Your task to perform on an android device: Clear the shopping cart on ebay.com. Add lenovo thinkpad to the cart on ebay.com, then select checkout. Image 0: 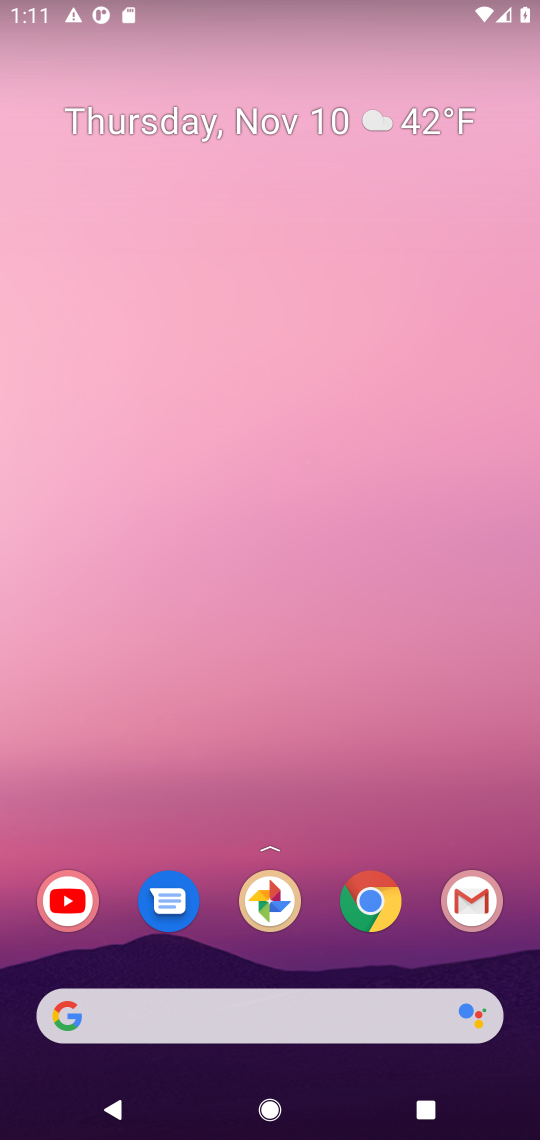
Step 0: drag from (280, 926) to (281, 204)
Your task to perform on an android device: Clear the shopping cart on ebay.com. Add lenovo thinkpad to the cart on ebay.com, then select checkout. Image 1: 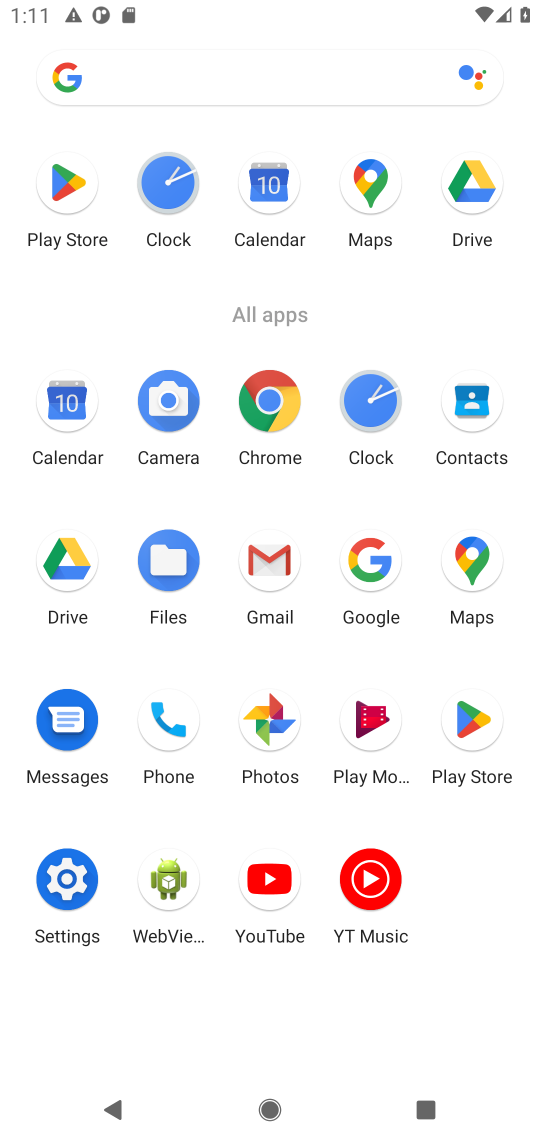
Step 1: click (253, 400)
Your task to perform on an android device: Clear the shopping cart on ebay.com. Add lenovo thinkpad to the cart on ebay.com, then select checkout. Image 2: 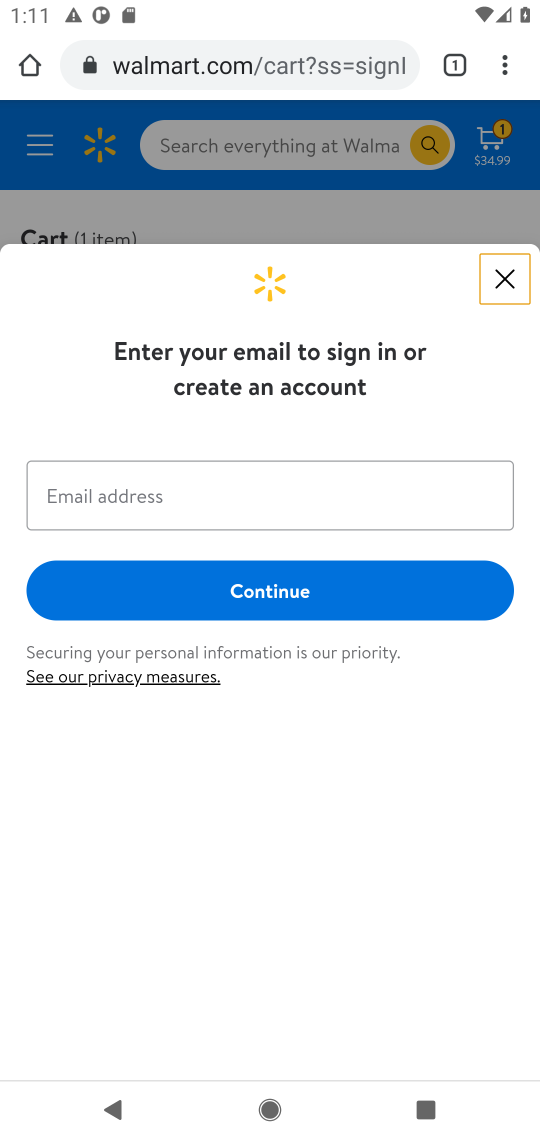
Step 2: click (157, 67)
Your task to perform on an android device: Clear the shopping cart on ebay.com. Add lenovo thinkpad to the cart on ebay.com, then select checkout. Image 3: 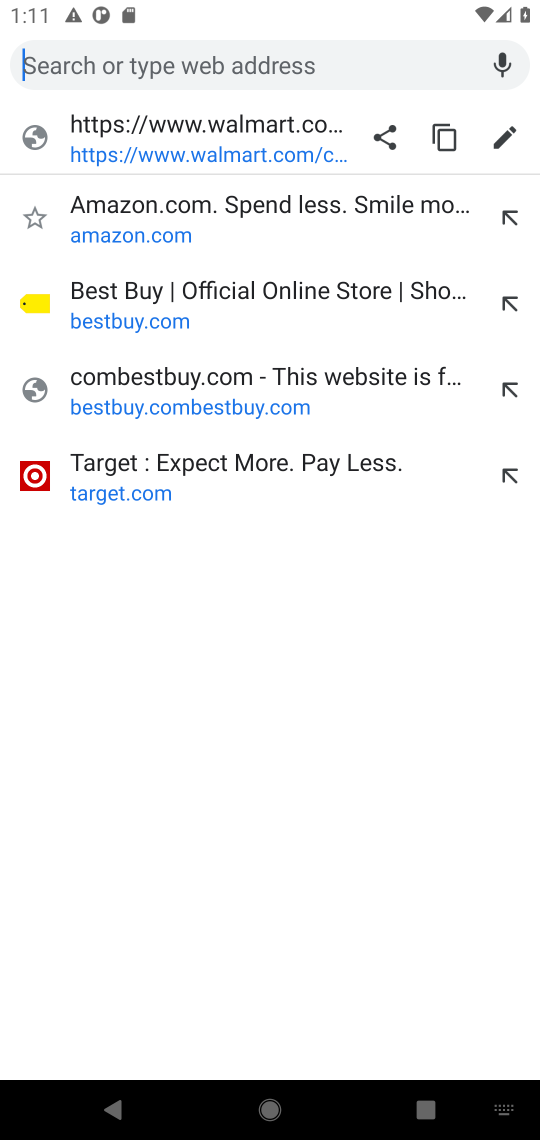
Step 3: type "ebay.com"
Your task to perform on an android device: Clear the shopping cart on ebay.com. Add lenovo thinkpad to the cart on ebay.com, then select checkout. Image 4: 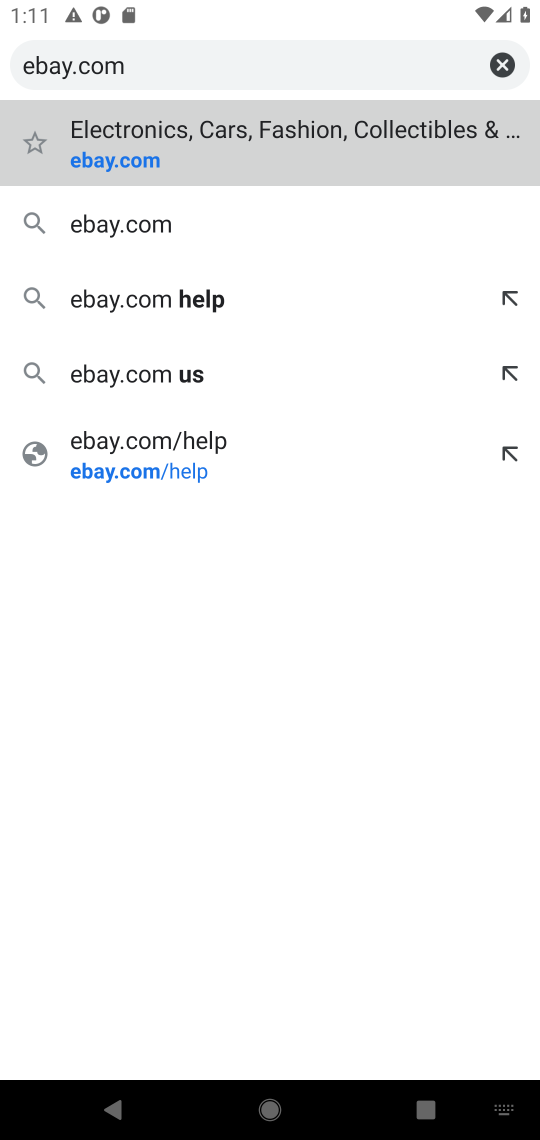
Step 4: press enter
Your task to perform on an android device: Clear the shopping cart on ebay.com. Add lenovo thinkpad to the cart on ebay.com, then select checkout. Image 5: 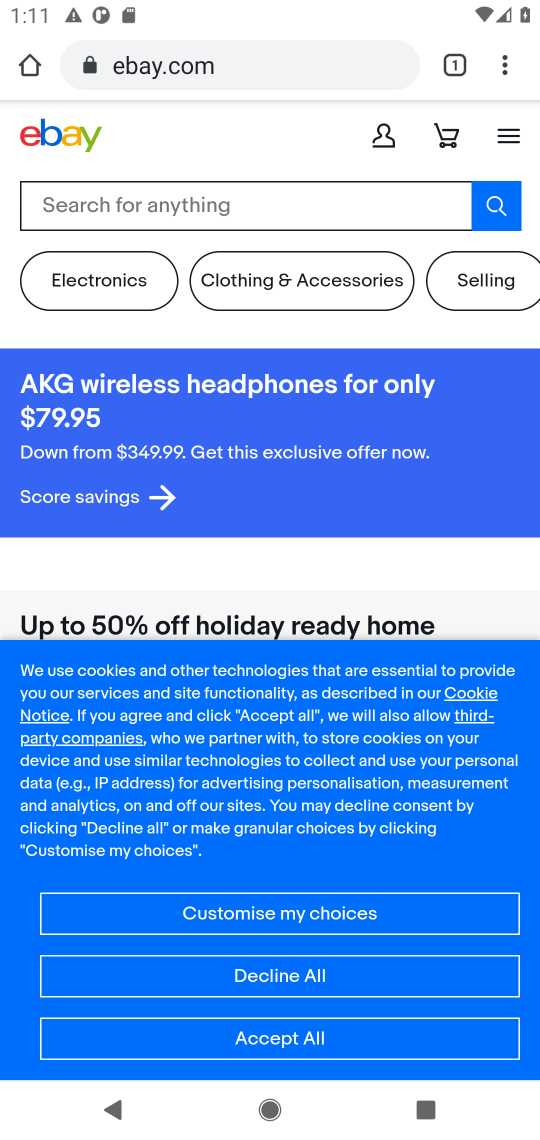
Step 5: click (114, 195)
Your task to perform on an android device: Clear the shopping cart on ebay.com. Add lenovo thinkpad to the cart on ebay.com, then select checkout. Image 6: 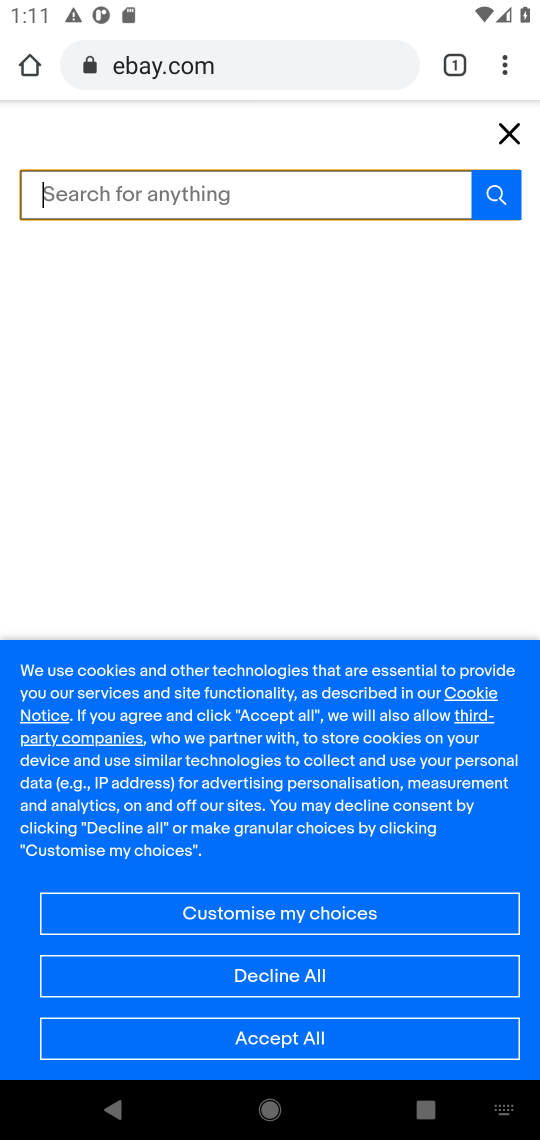
Step 6: type "lenovo thinkpad "
Your task to perform on an android device: Clear the shopping cart on ebay.com. Add lenovo thinkpad to the cart on ebay.com, then select checkout. Image 7: 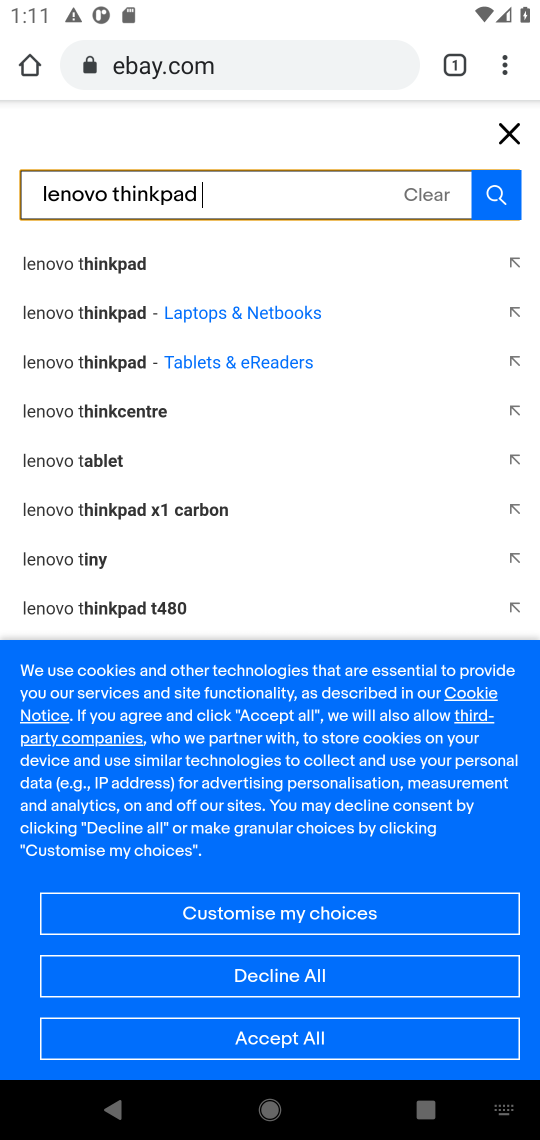
Step 7: press enter
Your task to perform on an android device: Clear the shopping cart on ebay.com. Add lenovo thinkpad to the cart on ebay.com, then select checkout. Image 8: 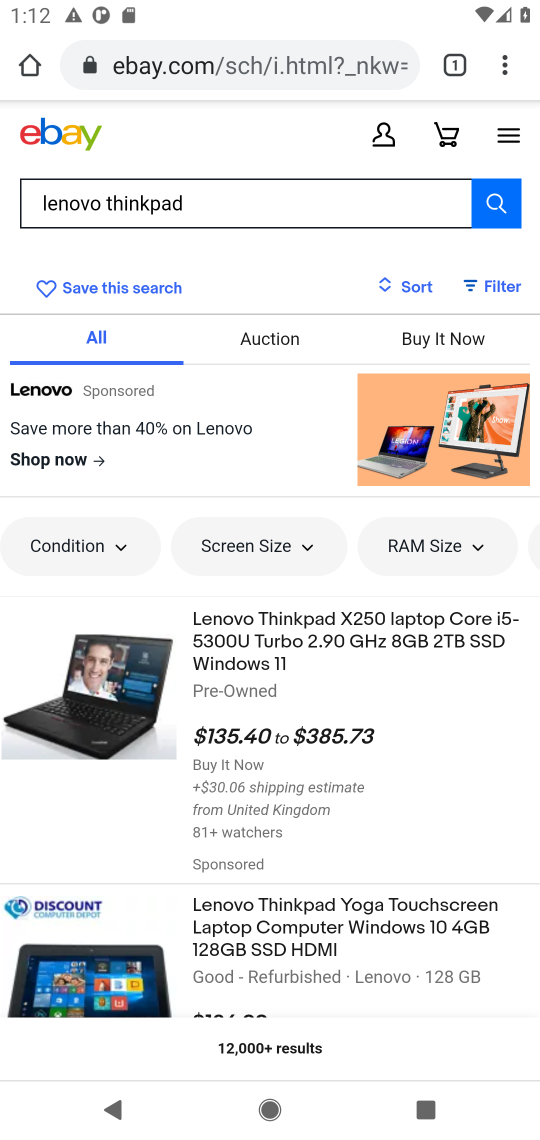
Step 8: click (314, 619)
Your task to perform on an android device: Clear the shopping cart on ebay.com. Add lenovo thinkpad to the cart on ebay.com, then select checkout. Image 9: 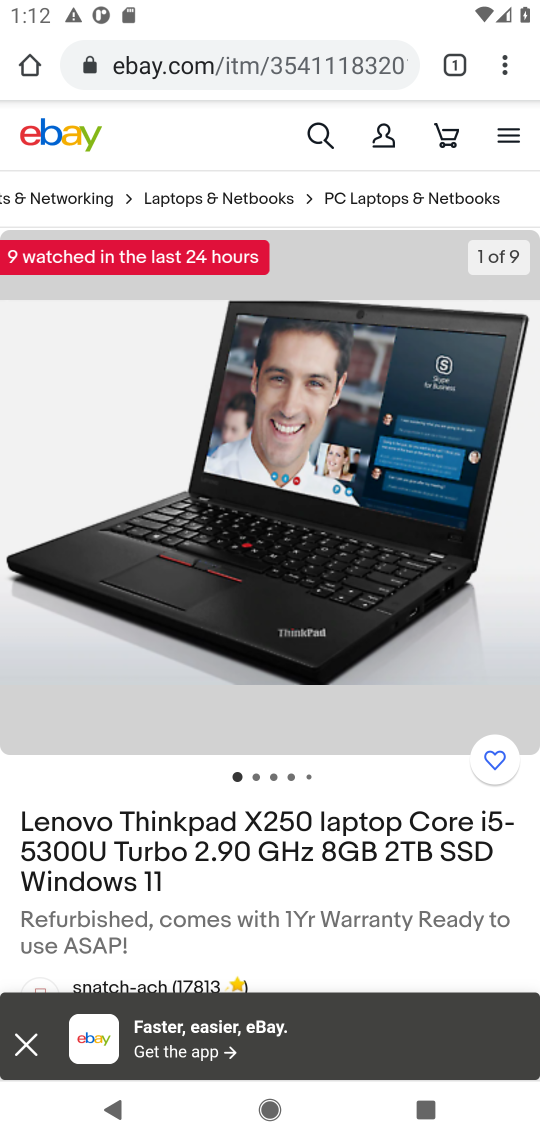
Step 9: drag from (216, 854) to (174, 450)
Your task to perform on an android device: Clear the shopping cart on ebay.com. Add lenovo thinkpad to the cart on ebay.com, then select checkout. Image 10: 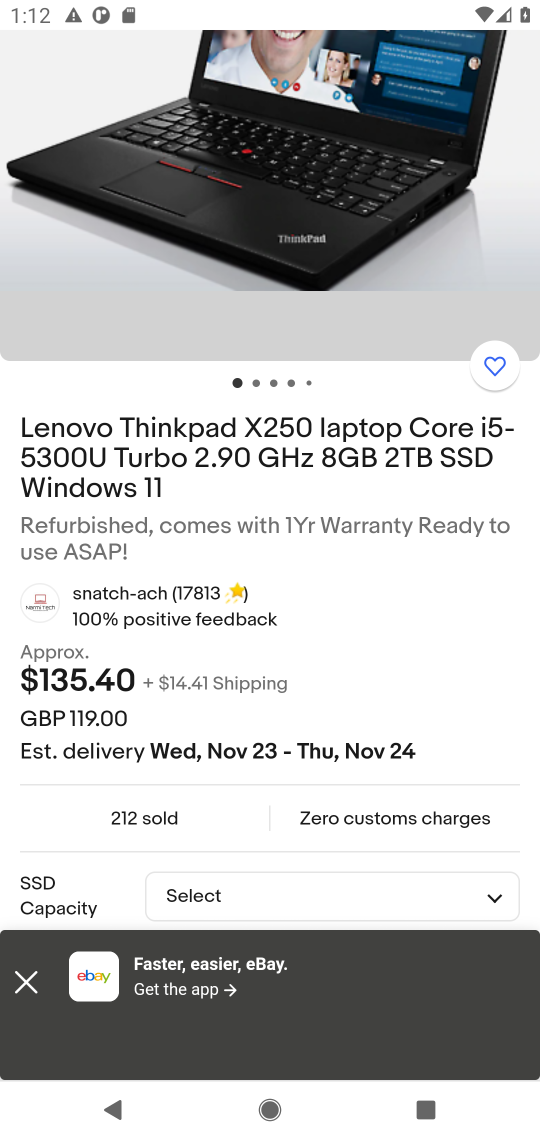
Step 10: drag from (199, 786) to (154, 433)
Your task to perform on an android device: Clear the shopping cart on ebay.com. Add lenovo thinkpad to the cart on ebay.com, then select checkout. Image 11: 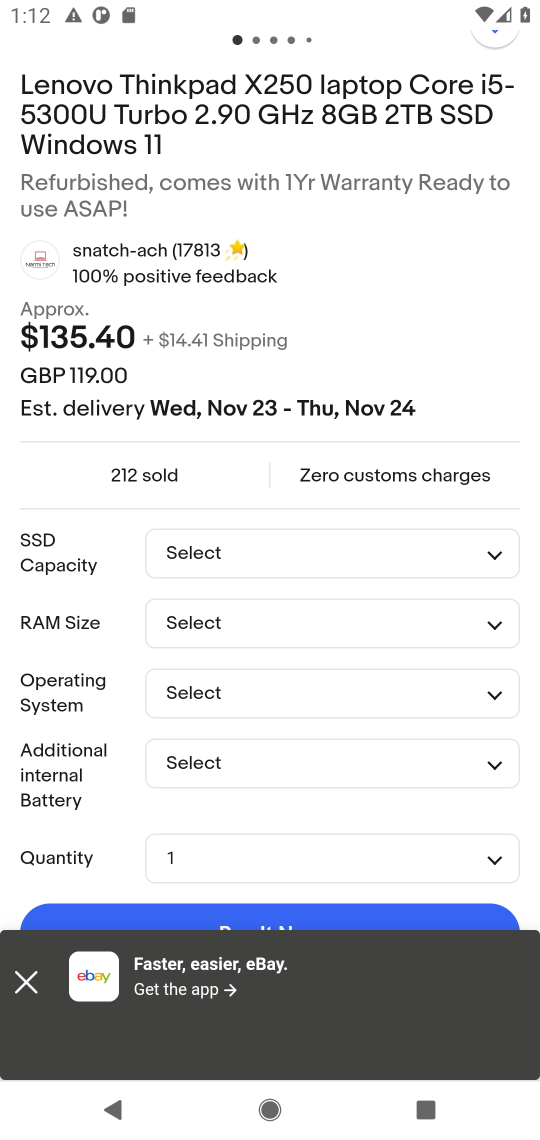
Step 11: drag from (184, 773) to (127, 400)
Your task to perform on an android device: Clear the shopping cart on ebay.com. Add lenovo thinkpad to the cart on ebay.com, then select checkout. Image 12: 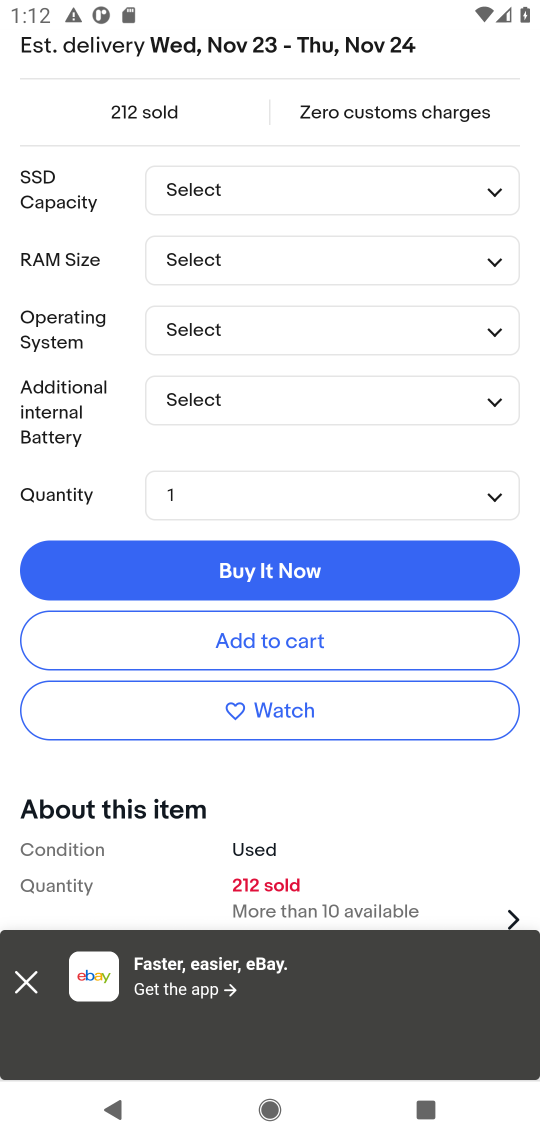
Step 12: click (226, 655)
Your task to perform on an android device: Clear the shopping cart on ebay.com. Add lenovo thinkpad to the cart on ebay.com, then select checkout. Image 13: 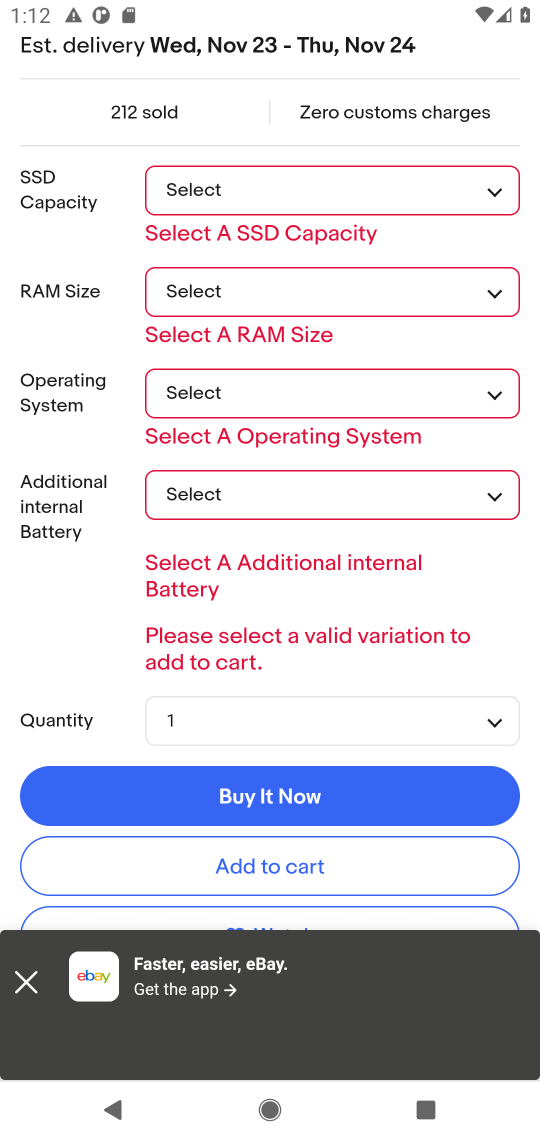
Step 13: click (325, 181)
Your task to perform on an android device: Clear the shopping cart on ebay.com. Add lenovo thinkpad to the cart on ebay.com, then select checkout. Image 14: 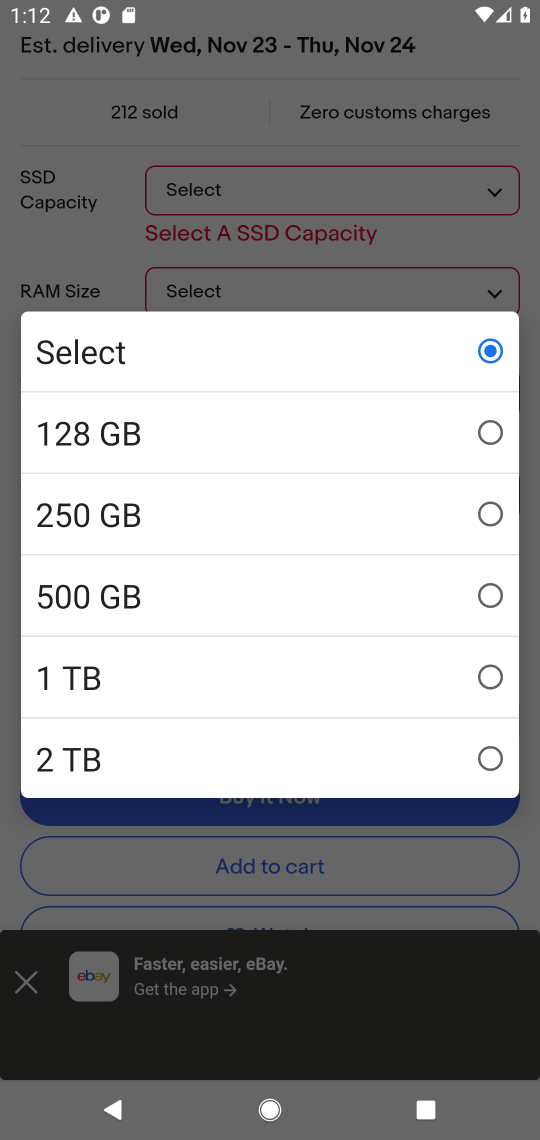
Step 14: click (125, 529)
Your task to perform on an android device: Clear the shopping cart on ebay.com. Add lenovo thinkpad to the cart on ebay.com, then select checkout. Image 15: 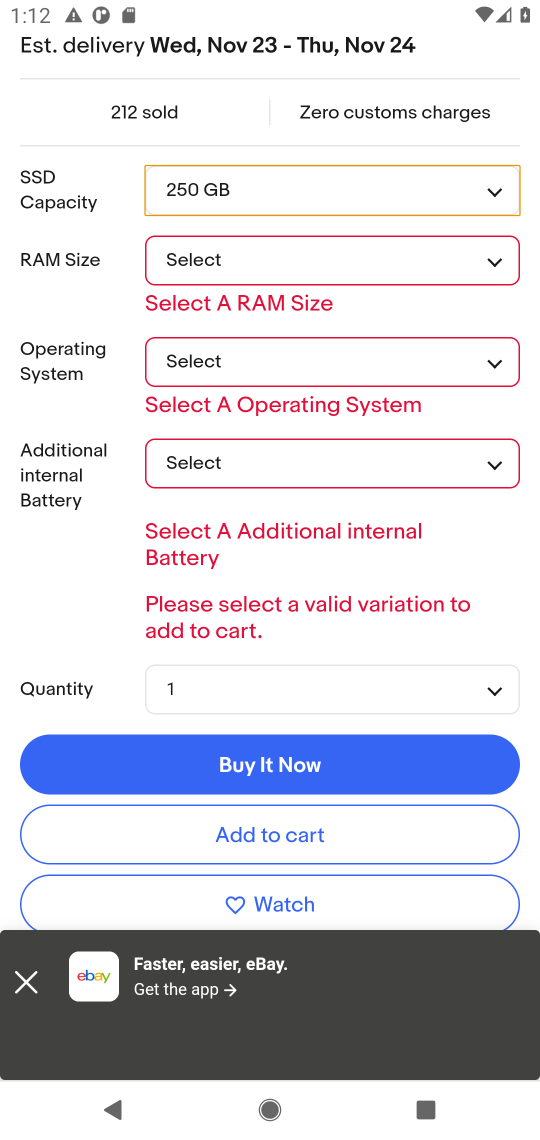
Step 15: click (494, 264)
Your task to perform on an android device: Clear the shopping cart on ebay.com. Add lenovo thinkpad to the cart on ebay.com, then select checkout. Image 16: 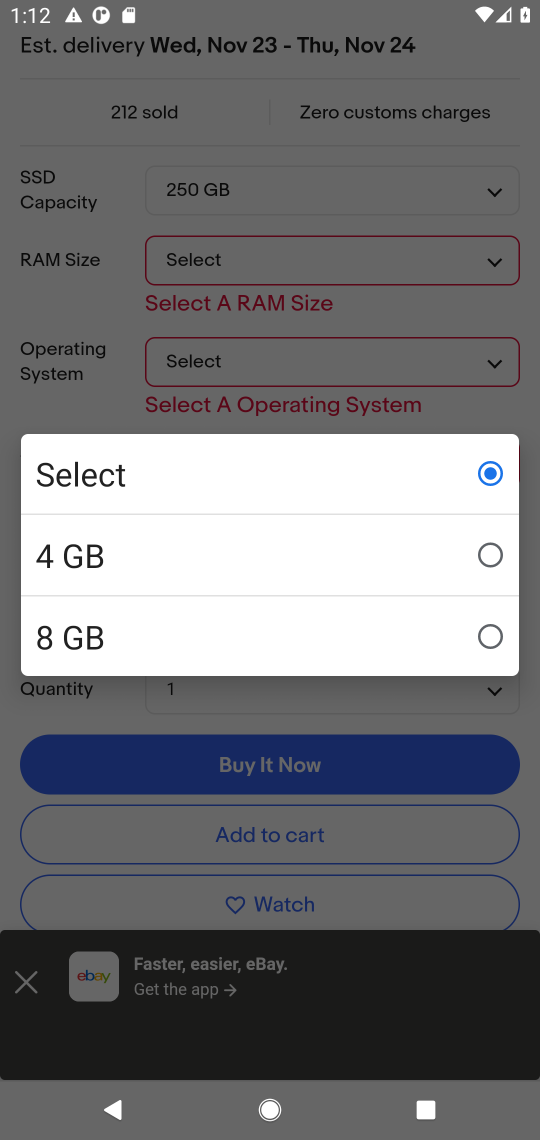
Step 16: click (221, 535)
Your task to perform on an android device: Clear the shopping cart on ebay.com. Add lenovo thinkpad to the cart on ebay.com, then select checkout. Image 17: 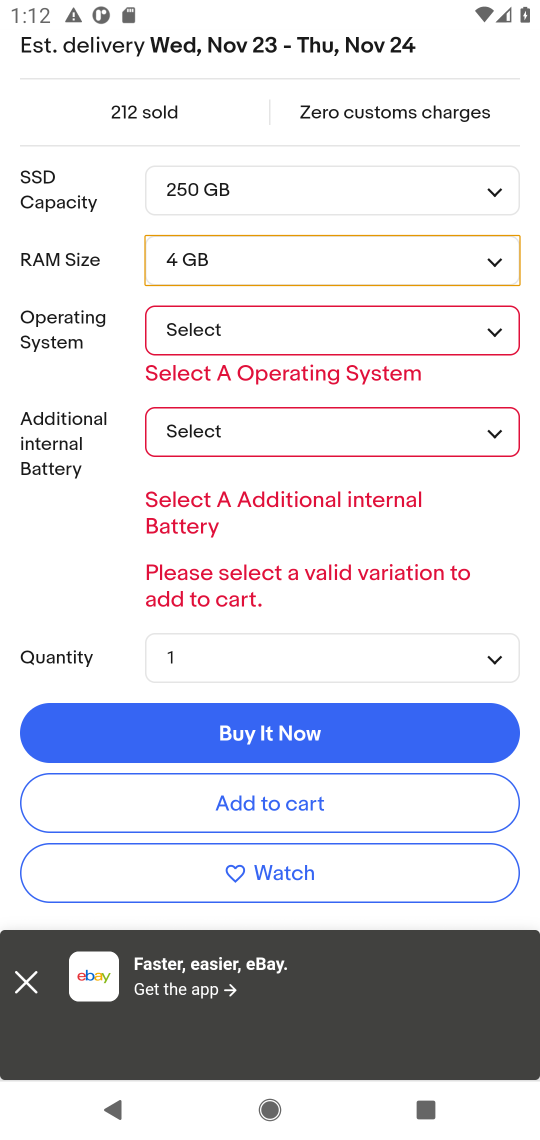
Step 17: click (444, 338)
Your task to perform on an android device: Clear the shopping cart on ebay.com. Add lenovo thinkpad to the cart on ebay.com, then select checkout. Image 18: 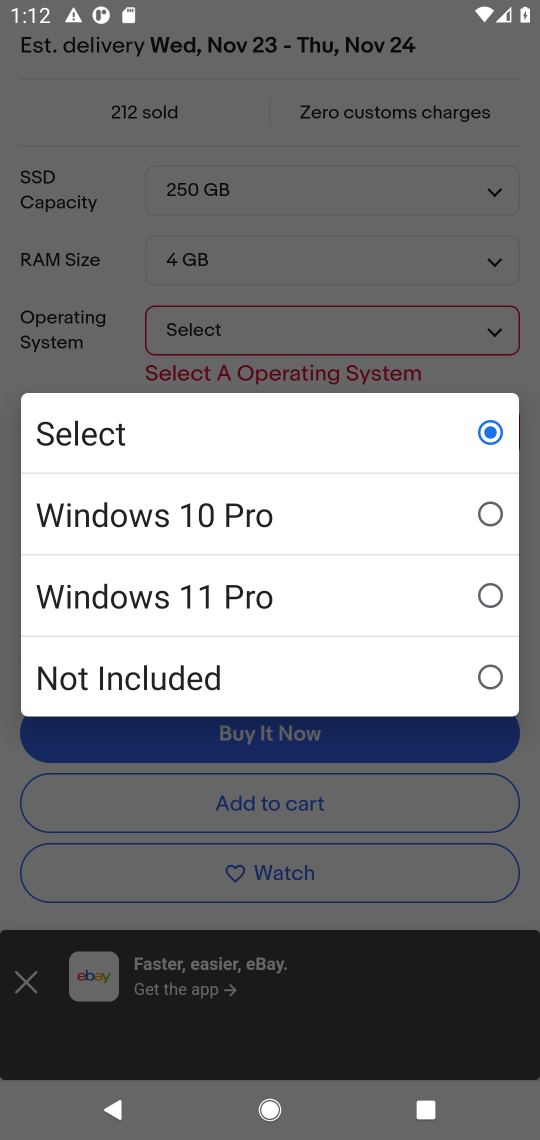
Step 18: click (156, 587)
Your task to perform on an android device: Clear the shopping cart on ebay.com. Add lenovo thinkpad to the cart on ebay.com, then select checkout. Image 19: 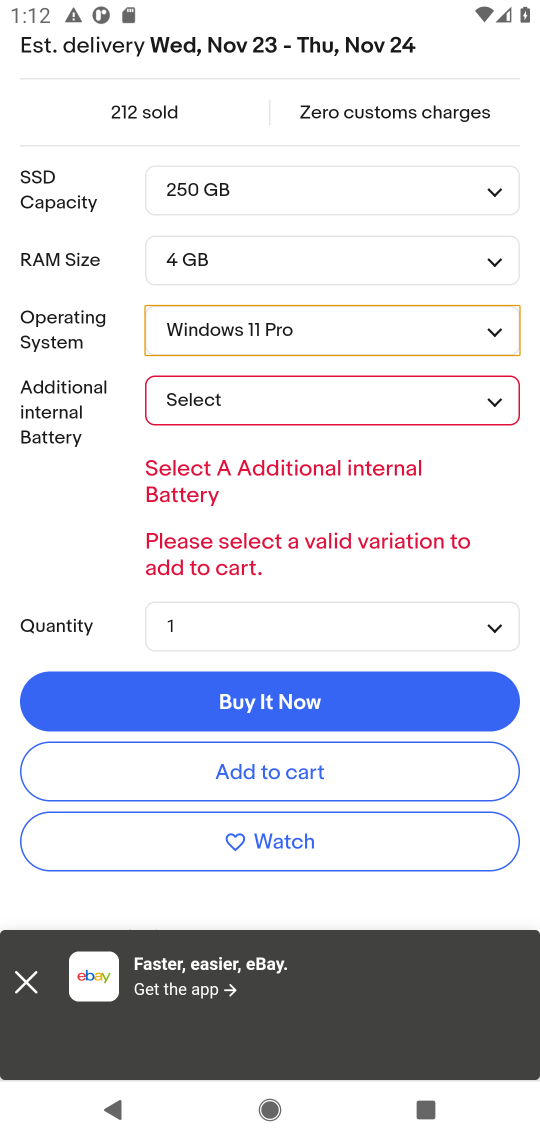
Step 19: click (391, 408)
Your task to perform on an android device: Clear the shopping cart on ebay.com. Add lenovo thinkpad to the cart on ebay.com, then select checkout. Image 20: 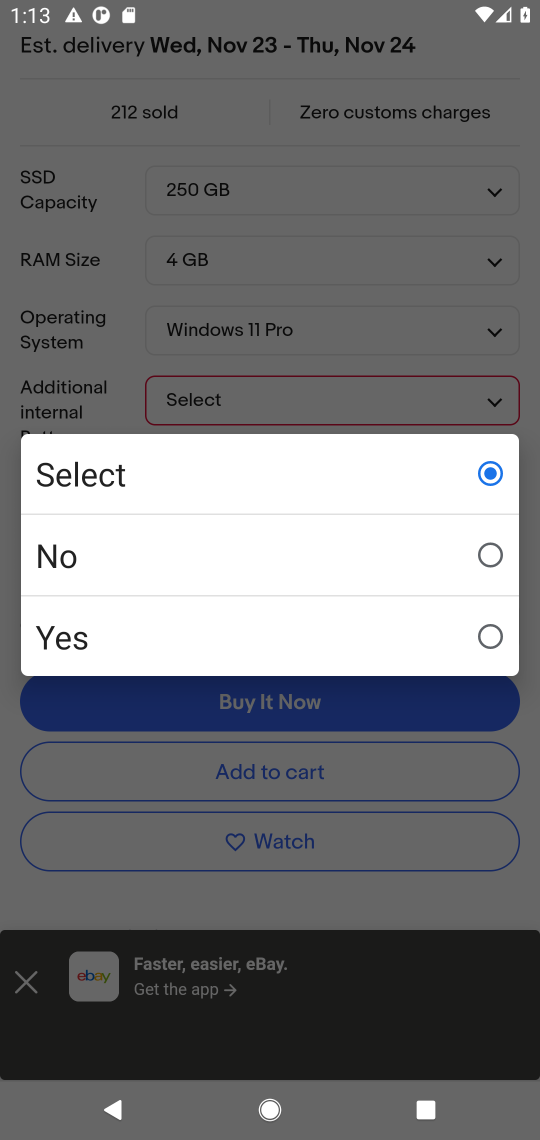
Step 20: click (198, 642)
Your task to perform on an android device: Clear the shopping cart on ebay.com. Add lenovo thinkpad to the cart on ebay.com, then select checkout. Image 21: 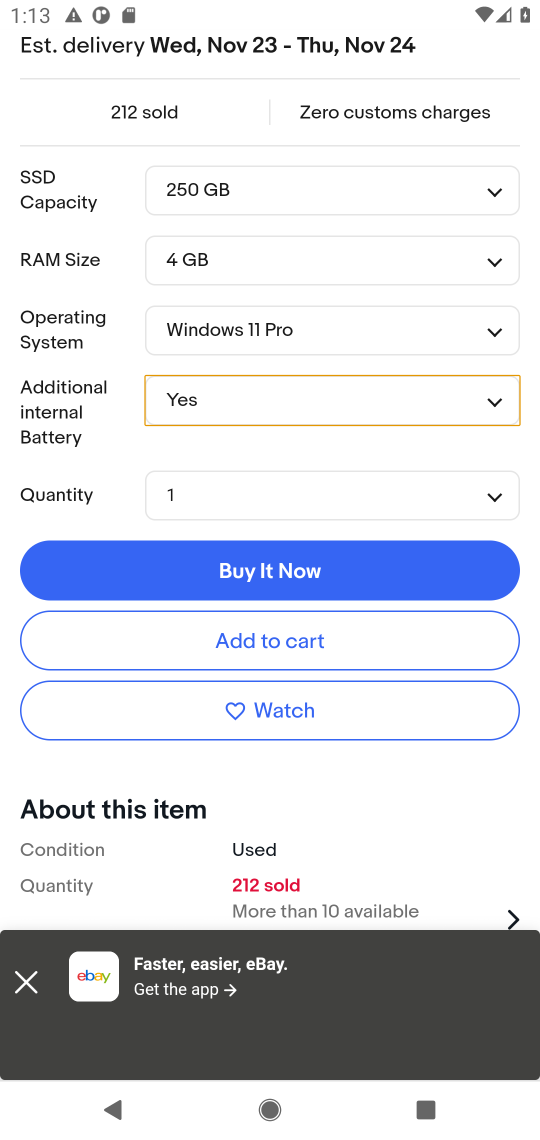
Step 21: click (198, 642)
Your task to perform on an android device: Clear the shopping cart on ebay.com. Add lenovo thinkpad to the cart on ebay.com, then select checkout. Image 22: 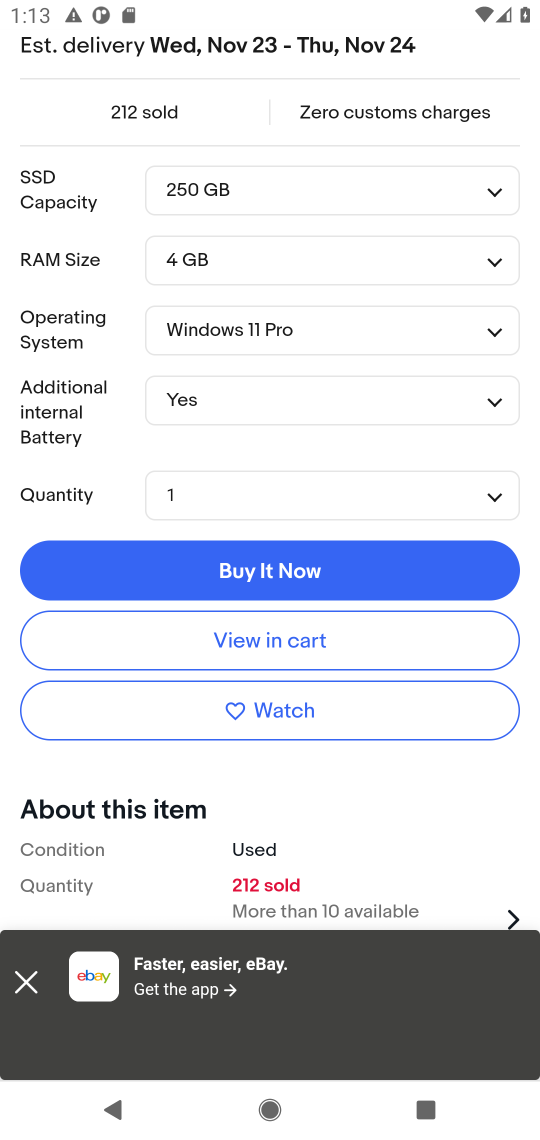
Step 22: click (319, 627)
Your task to perform on an android device: Clear the shopping cart on ebay.com. Add lenovo thinkpad to the cart on ebay.com, then select checkout. Image 23: 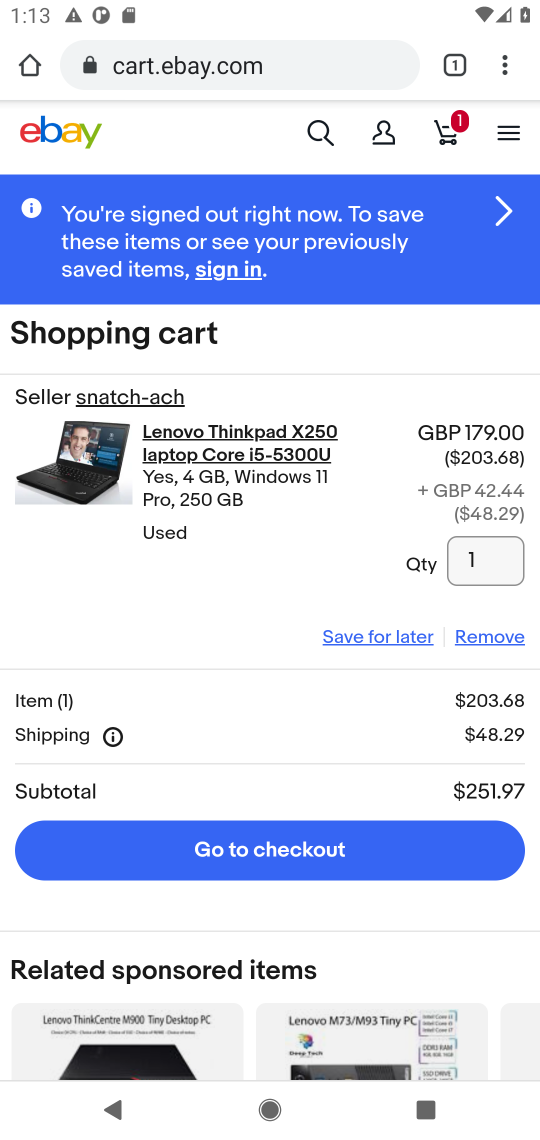
Step 23: click (239, 808)
Your task to perform on an android device: Clear the shopping cart on ebay.com. Add lenovo thinkpad to the cart on ebay.com, then select checkout. Image 24: 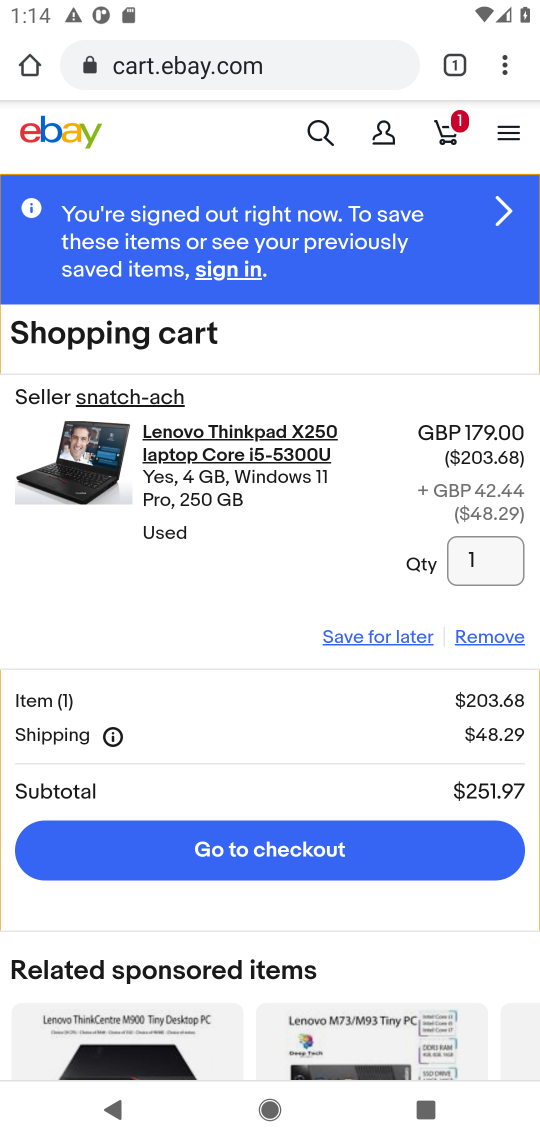
Step 24: click (245, 864)
Your task to perform on an android device: Clear the shopping cart on ebay.com. Add lenovo thinkpad to the cart on ebay.com, then select checkout. Image 25: 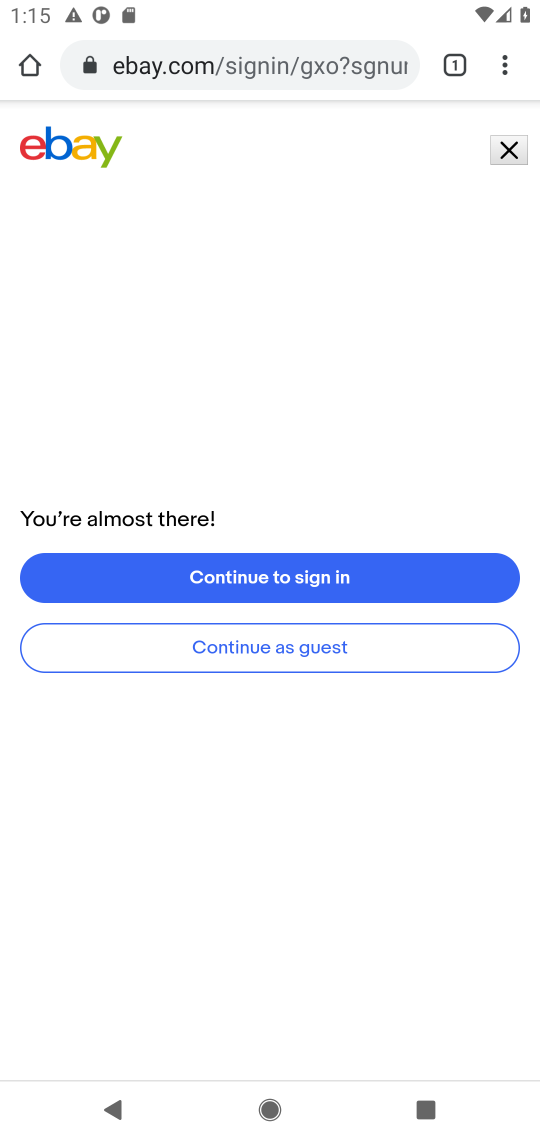
Step 25: task complete